Your task to perform on an android device: Open the web browser Image 0: 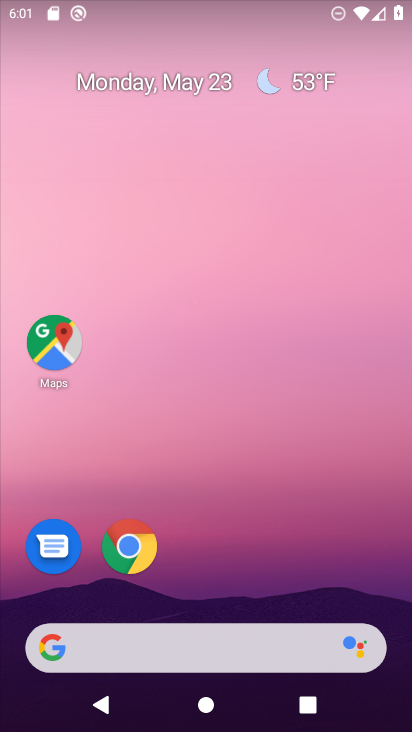
Step 0: click (139, 541)
Your task to perform on an android device: Open the web browser Image 1: 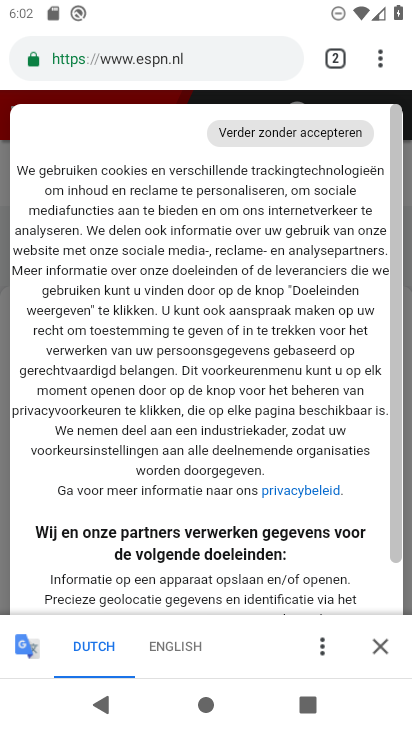
Step 1: task complete